Your task to perform on an android device: delete a single message in the gmail app Image 0: 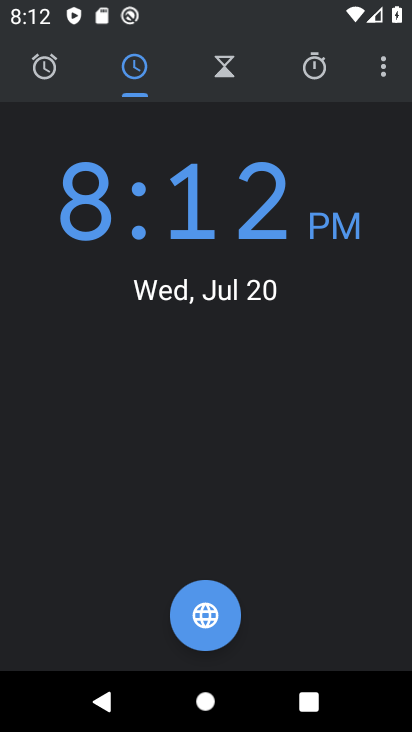
Step 0: press home button
Your task to perform on an android device: delete a single message in the gmail app Image 1: 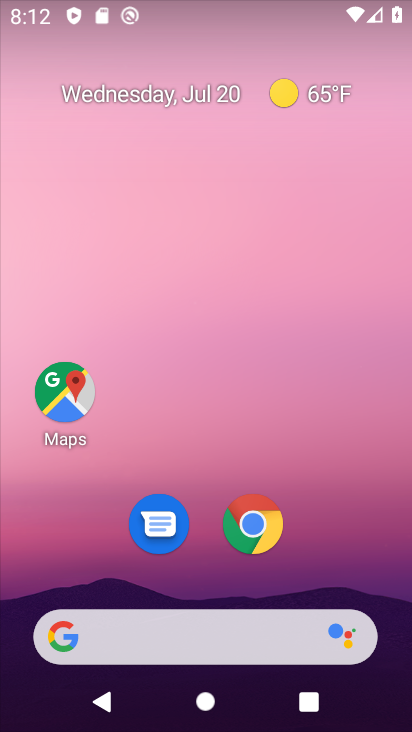
Step 1: drag from (332, 547) to (376, 48)
Your task to perform on an android device: delete a single message in the gmail app Image 2: 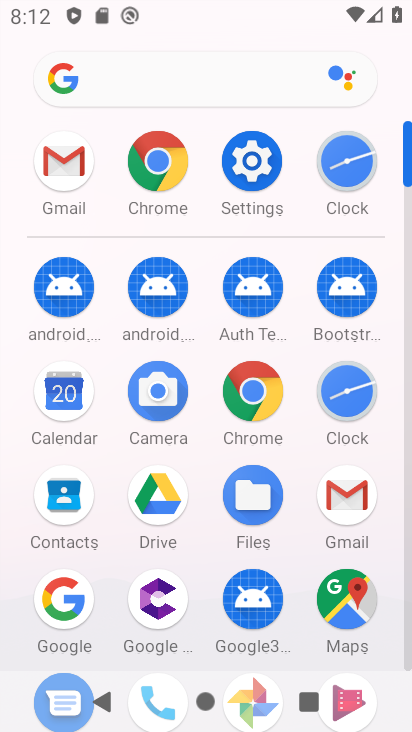
Step 2: click (82, 169)
Your task to perform on an android device: delete a single message in the gmail app Image 3: 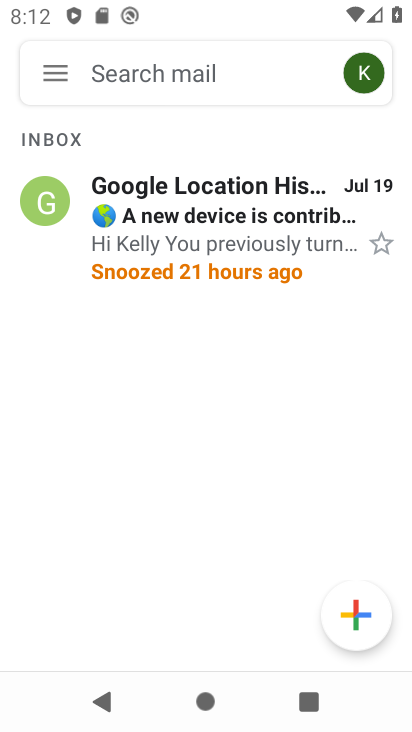
Step 3: click (55, 66)
Your task to perform on an android device: delete a single message in the gmail app Image 4: 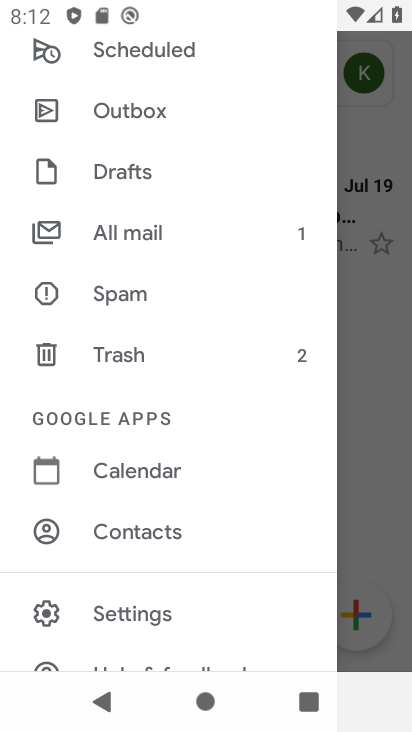
Step 4: click (125, 227)
Your task to perform on an android device: delete a single message in the gmail app Image 5: 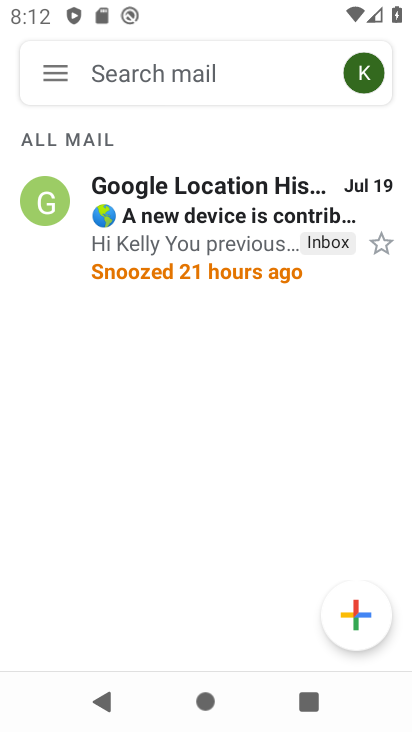
Step 5: click (56, 64)
Your task to perform on an android device: delete a single message in the gmail app Image 6: 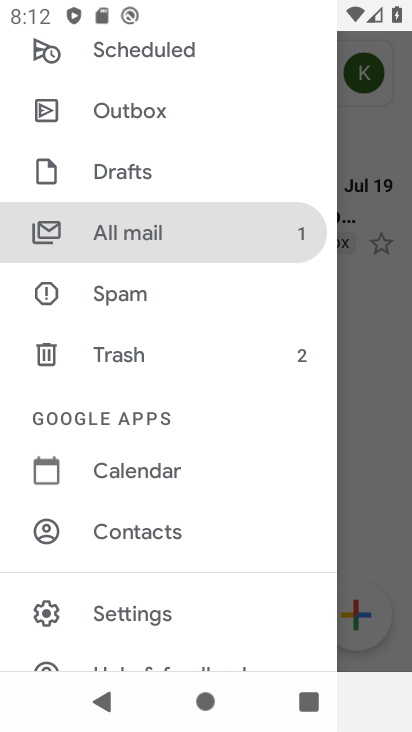
Step 6: click (141, 352)
Your task to perform on an android device: delete a single message in the gmail app Image 7: 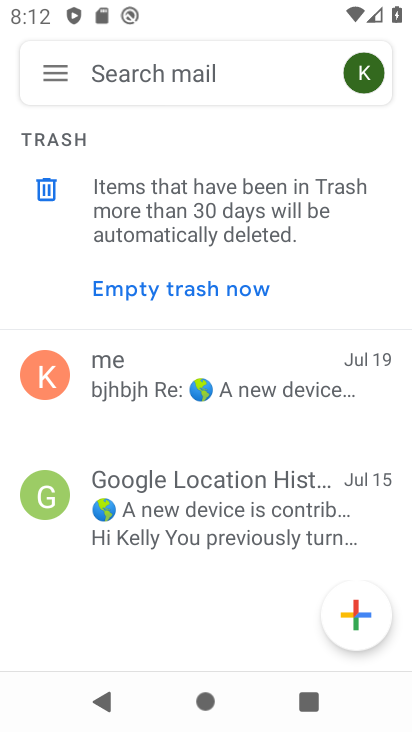
Step 7: click (51, 371)
Your task to perform on an android device: delete a single message in the gmail app Image 8: 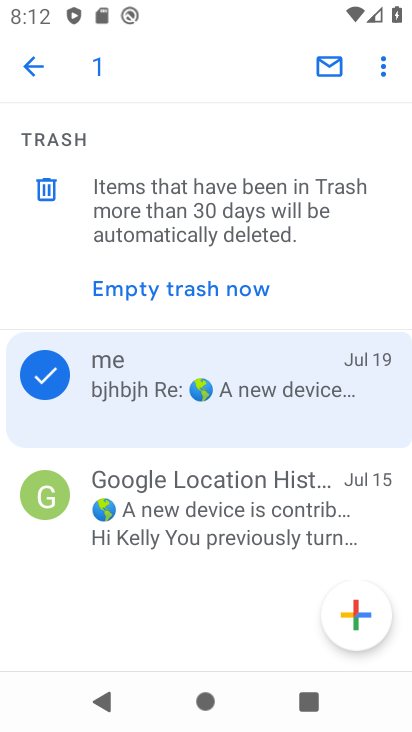
Step 8: click (46, 189)
Your task to perform on an android device: delete a single message in the gmail app Image 9: 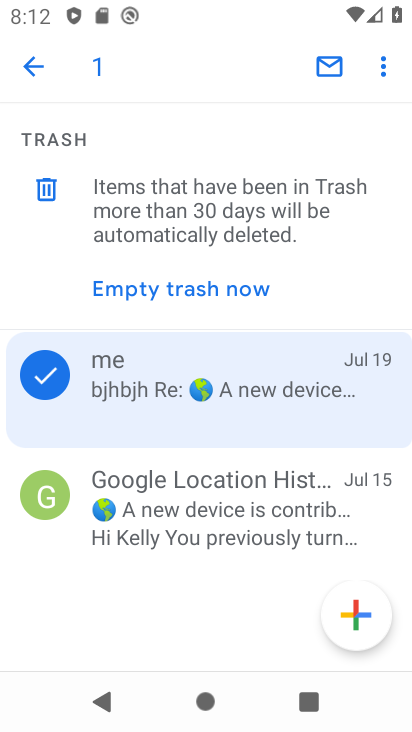
Step 9: click (101, 378)
Your task to perform on an android device: delete a single message in the gmail app Image 10: 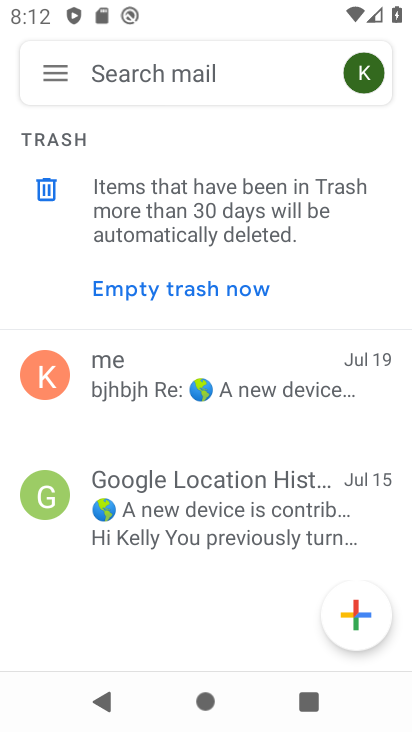
Step 10: click (102, 378)
Your task to perform on an android device: delete a single message in the gmail app Image 11: 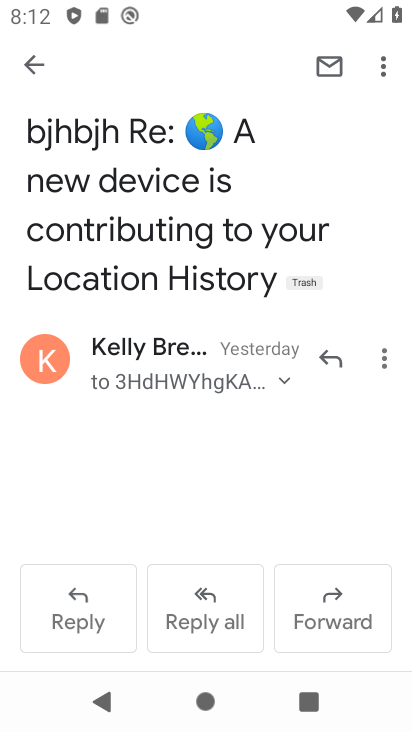
Step 11: click (380, 63)
Your task to perform on an android device: delete a single message in the gmail app Image 12: 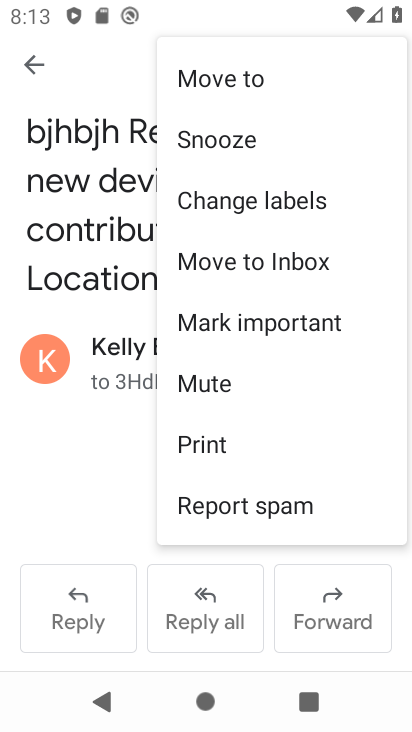
Step 12: click (96, 417)
Your task to perform on an android device: delete a single message in the gmail app Image 13: 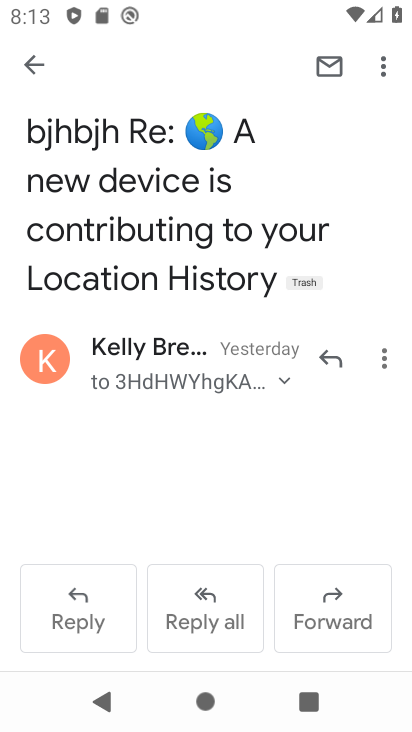
Step 13: click (44, 358)
Your task to perform on an android device: delete a single message in the gmail app Image 14: 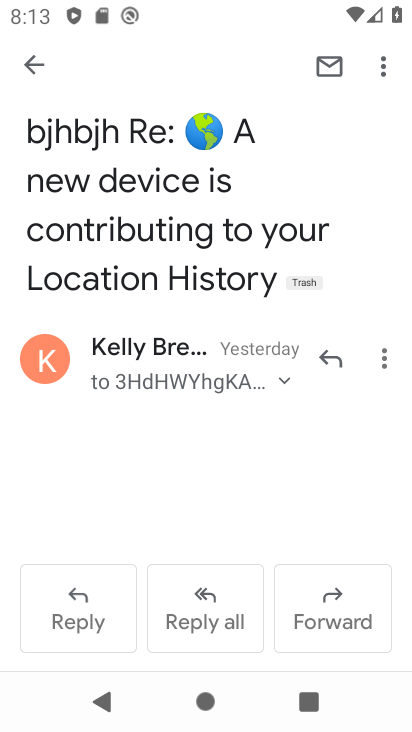
Step 14: click (44, 357)
Your task to perform on an android device: delete a single message in the gmail app Image 15: 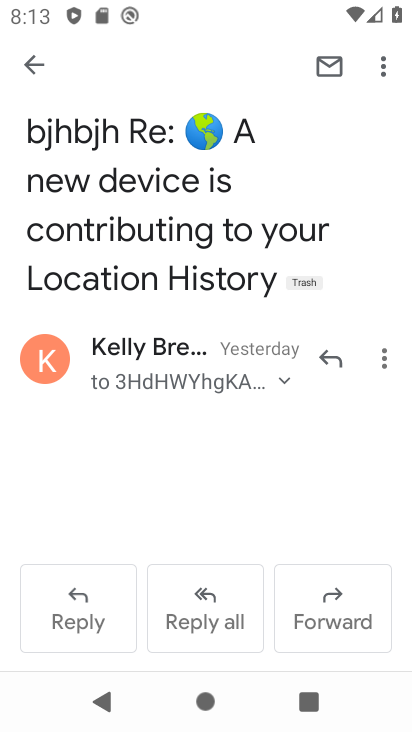
Step 15: click (40, 56)
Your task to perform on an android device: delete a single message in the gmail app Image 16: 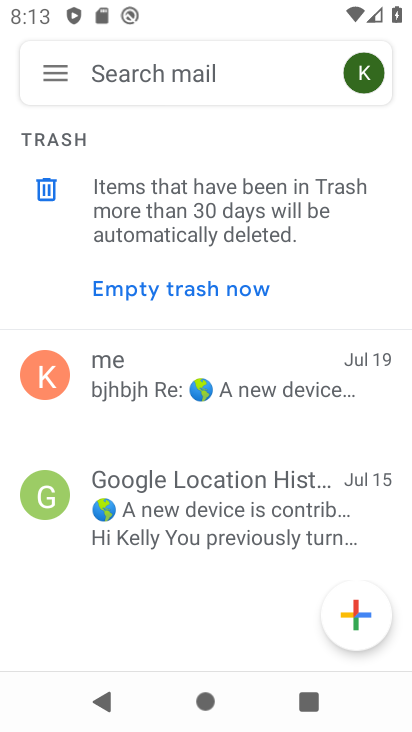
Step 16: click (56, 74)
Your task to perform on an android device: delete a single message in the gmail app Image 17: 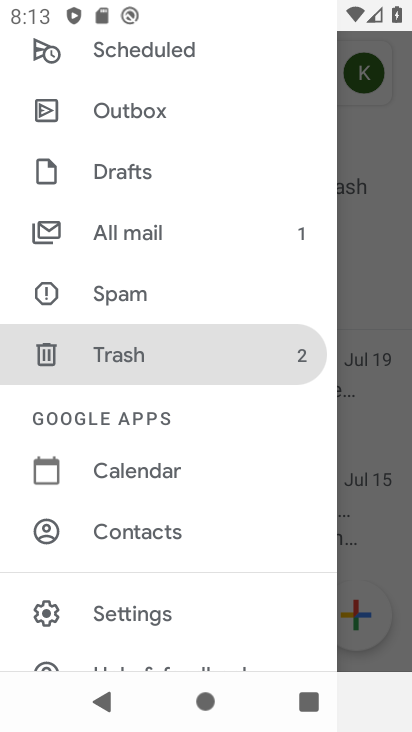
Step 17: click (173, 223)
Your task to perform on an android device: delete a single message in the gmail app Image 18: 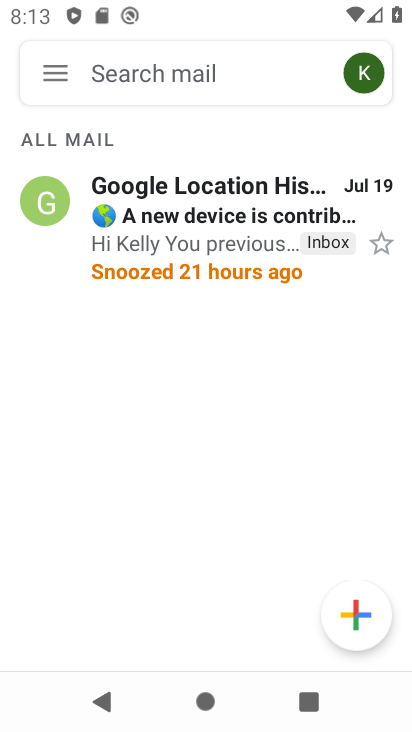
Step 18: click (47, 198)
Your task to perform on an android device: delete a single message in the gmail app Image 19: 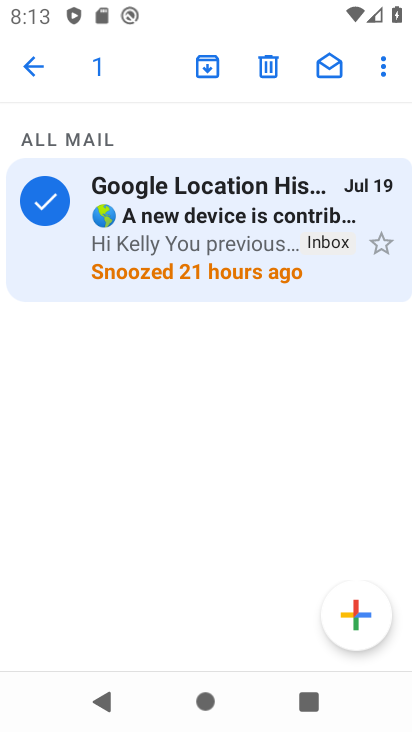
Step 19: click (272, 65)
Your task to perform on an android device: delete a single message in the gmail app Image 20: 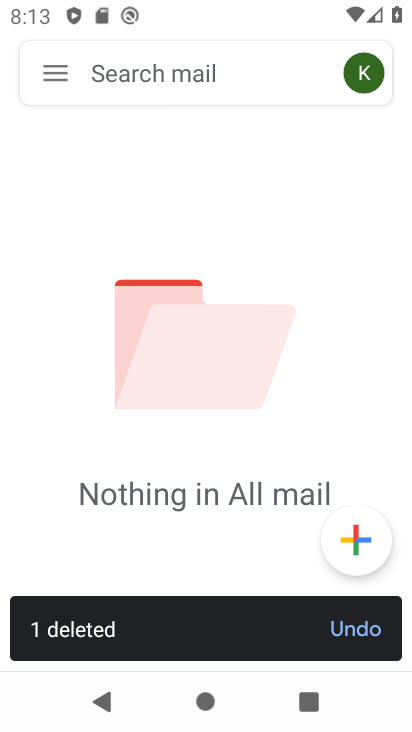
Step 20: task complete